Your task to perform on an android device: delete browsing data in the chrome app Image 0: 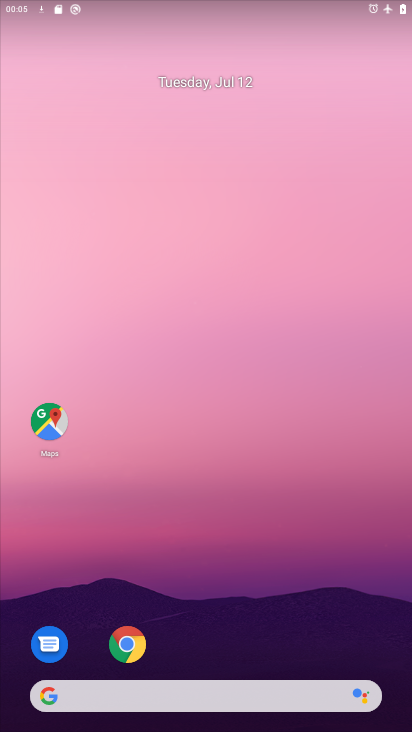
Step 0: drag from (205, 653) to (209, 260)
Your task to perform on an android device: delete browsing data in the chrome app Image 1: 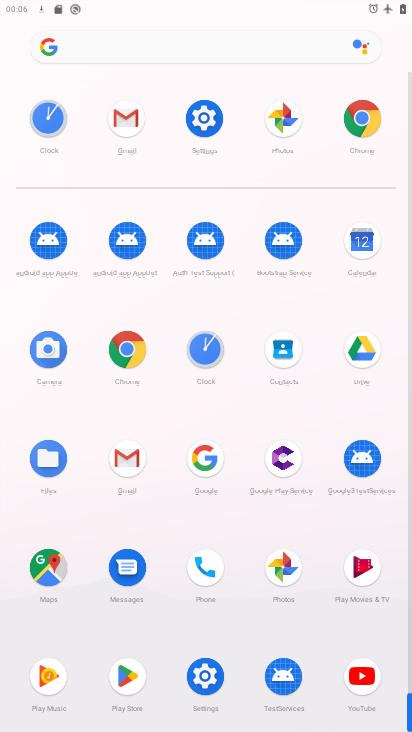
Step 1: click (365, 125)
Your task to perform on an android device: delete browsing data in the chrome app Image 2: 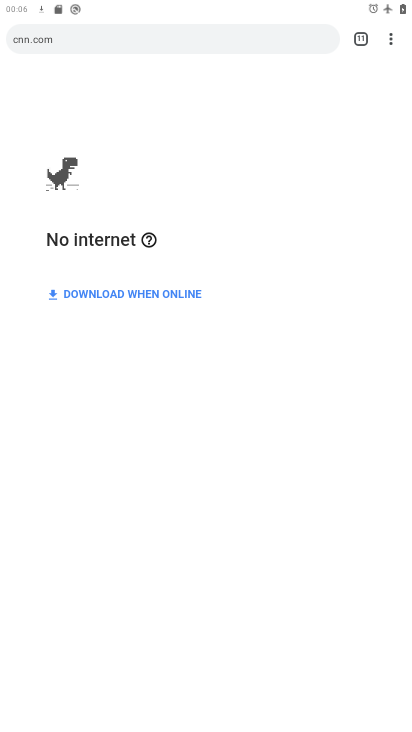
Step 2: click (389, 27)
Your task to perform on an android device: delete browsing data in the chrome app Image 3: 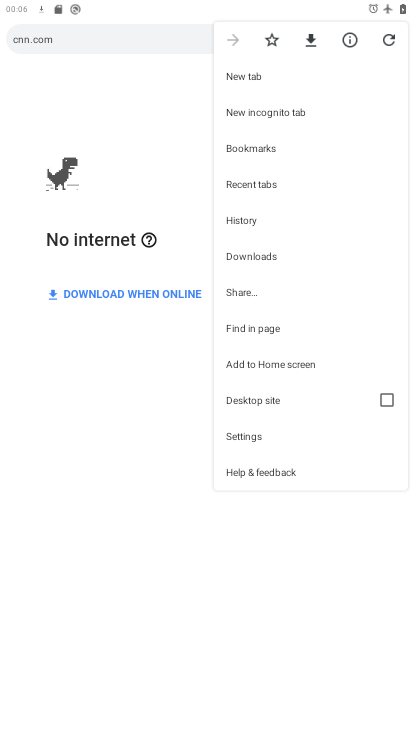
Step 3: click (263, 439)
Your task to perform on an android device: delete browsing data in the chrome app Image 4: 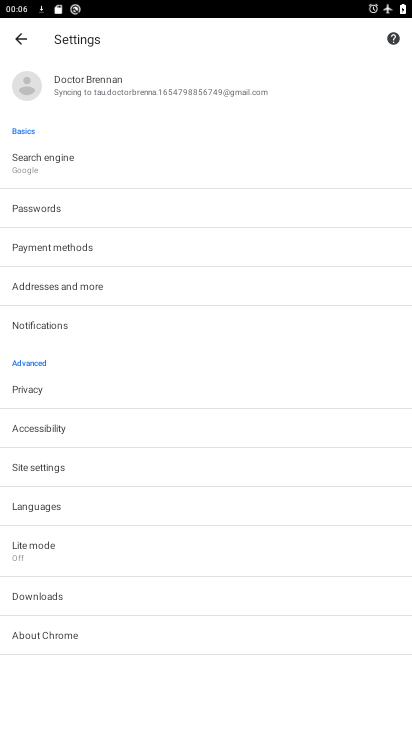
Step 4: click (62, 396)
Your task to perform on an android device: delete browsing data in the chrome app Image 5: 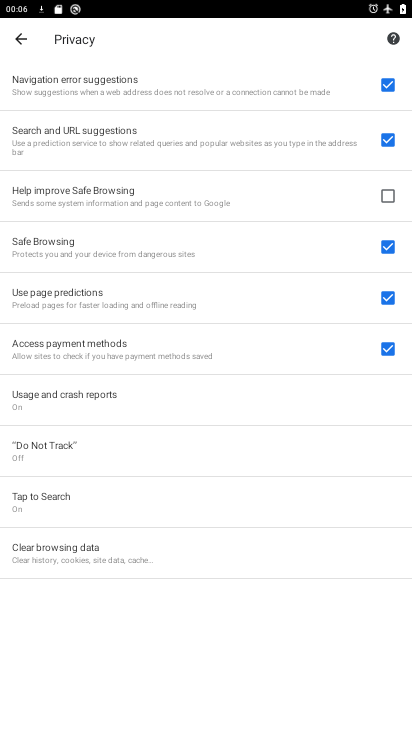
Step 5: click (96, 560)
Your task to perform on an android device: delete browsing data in the chrome app Image 6: 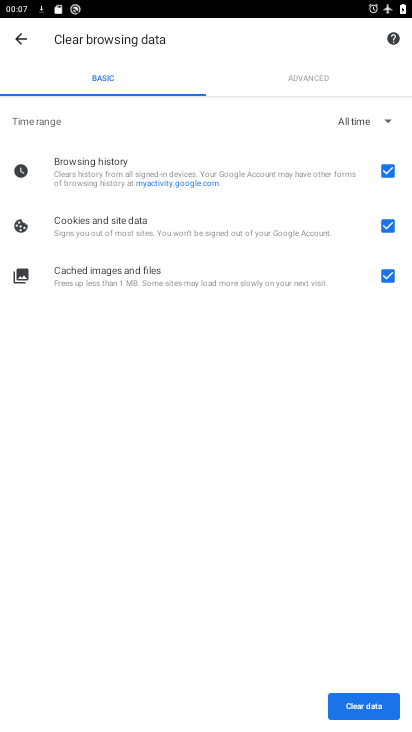
Step 6: click (371, 709)
Your task to perform on an android device: delete browsing data in the chrome app Image 7: 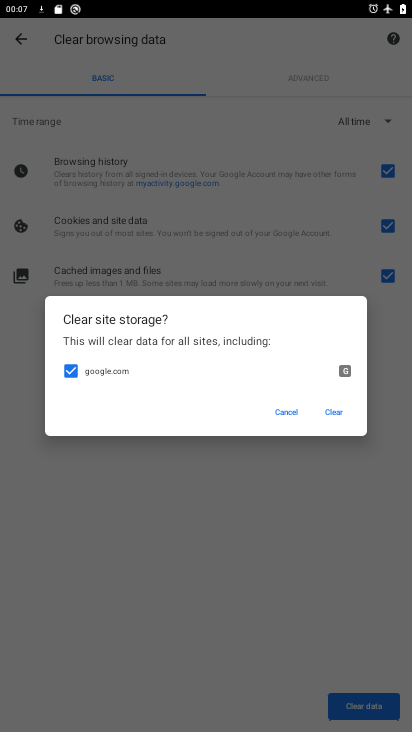
Step 7: click (325, 404)
Your task to perform on an android device: delete browsing data in the chrome app Image 8: 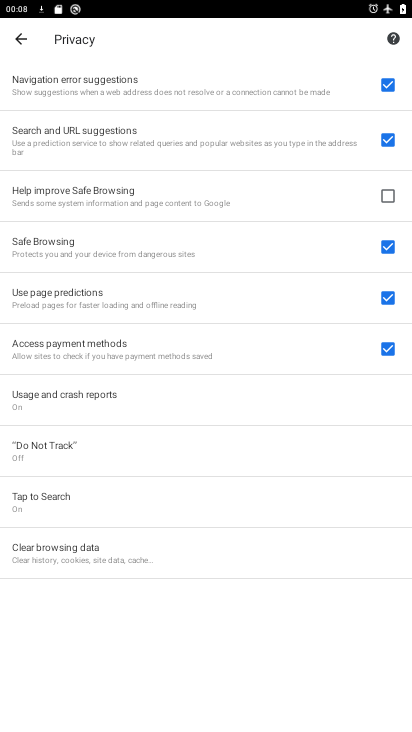
Step 8: task complete